Your task to perform on an android device: read, delete, or share a saved page in the chrome app Image 0: 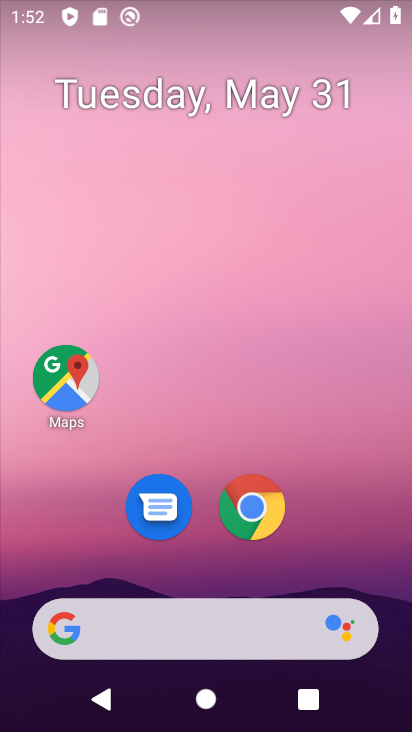
Step 0: click (249, 505)
Your task to perform on an android device: read, delete, or share a saved page in the chrome app Image 1: 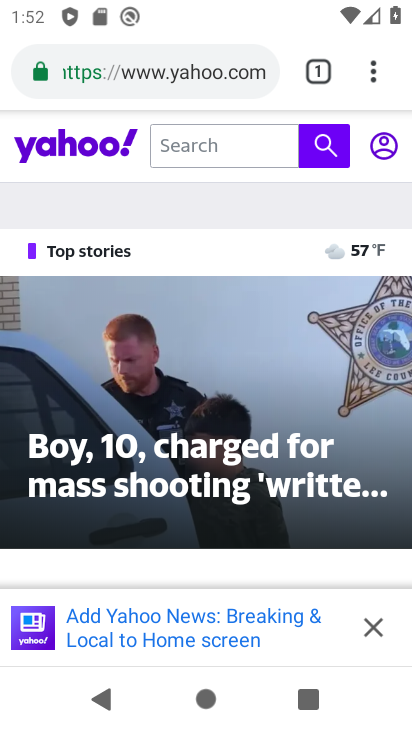
Step 1: click (386, 77)
Your task to perform on an android device: read, delete, or share a saved page in the chrome app Image 2: 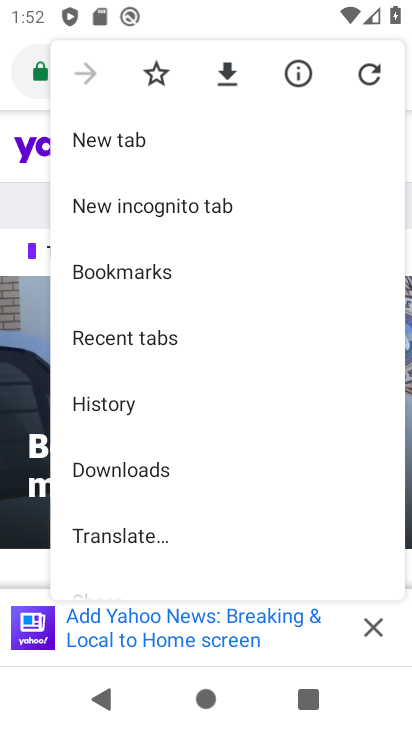
Step 2: click (165, 461)
Your task to perform on an android device: read, delete, or share a saved page in the chrome app Image 3: 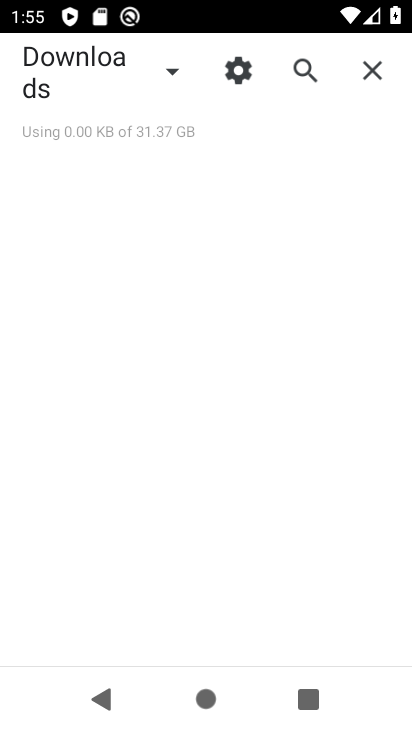
Step 3: task complete